Your task to perform on an android device: Go to privacy settings Image 0: 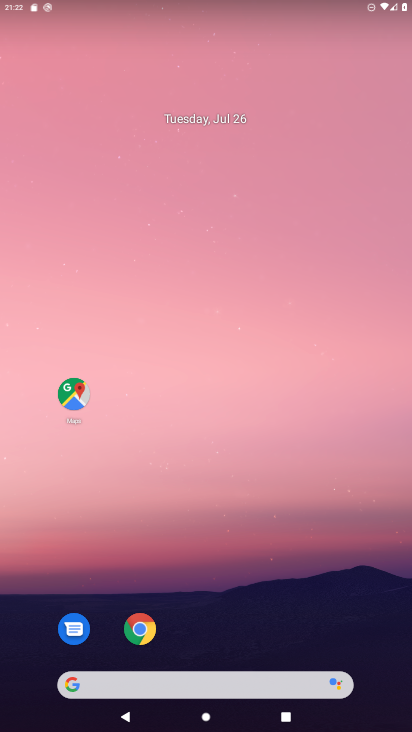
Step 0: press home button
Your task to perform on an android device: Go to privacy settings Image 1: 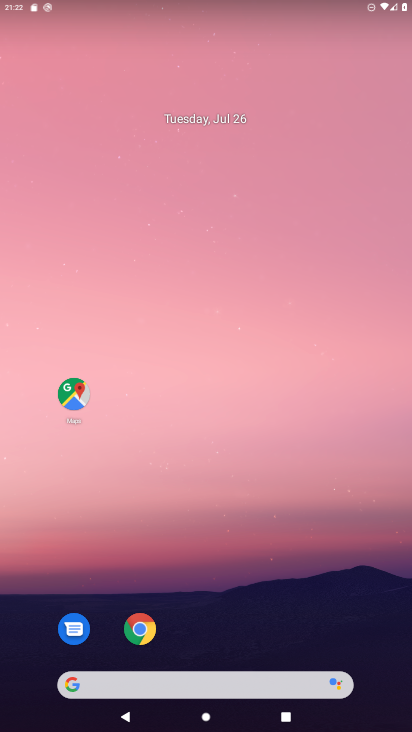
Step 1: drag from (267, 638) to (246, 377)
Your task to perform on an android device: Go to privacy settings Image 2: 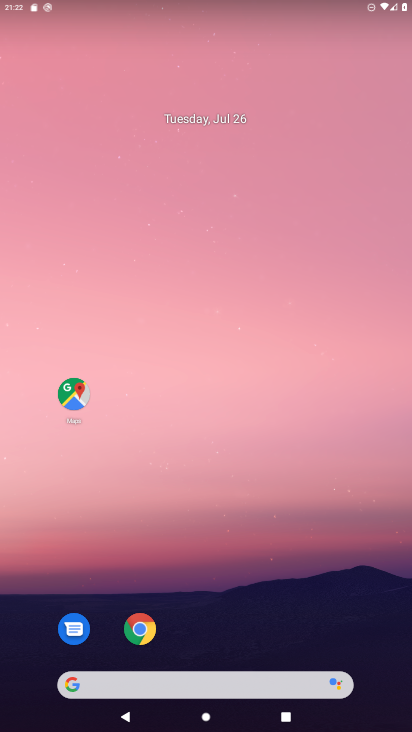
Step 2: drag from (295, 625) to (255, 90)
Your task to perform on an android device: Go to privacy settings Image 3: 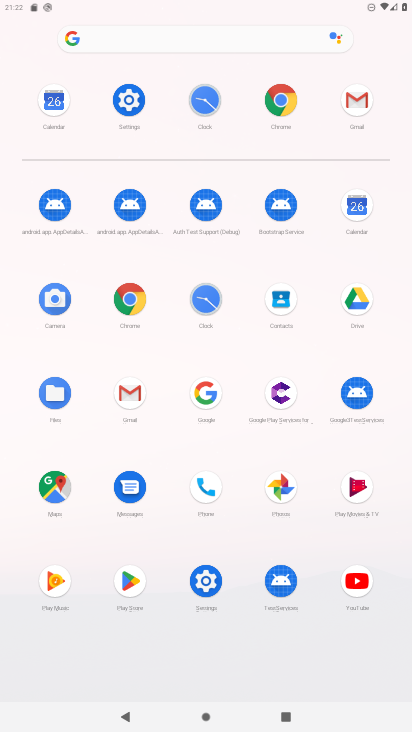
Step 3: click (232, 577)
Your task to perform on an android device: Go to privacy settings Image 4: 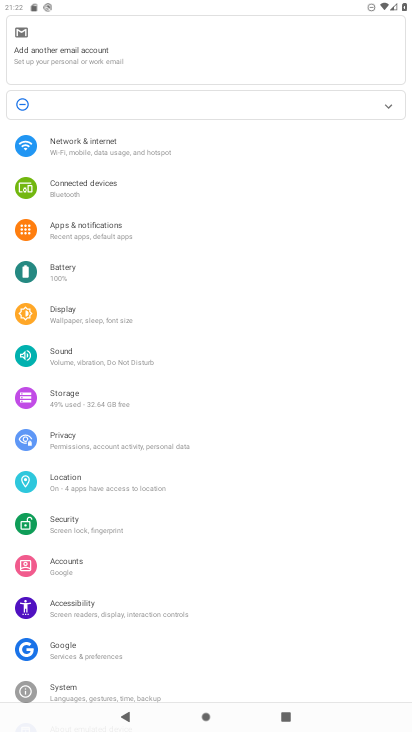
Step 4: click (76, 439)
Your task to perform on an android device: Go to privacy settings Image 5: 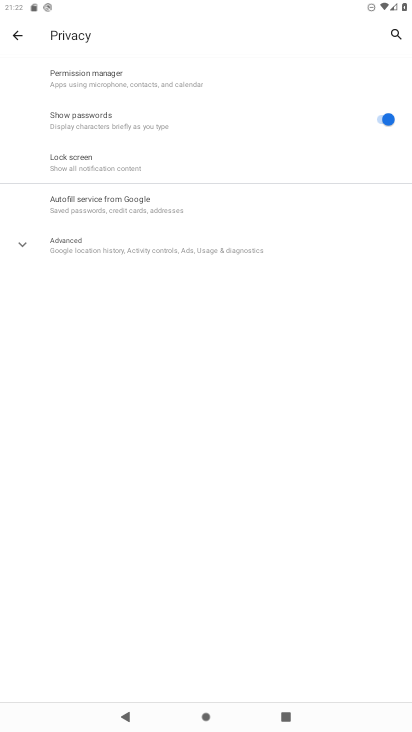
Step 5: task complete